Your task to perform on an android device: star an email in the gmail app Image 0: 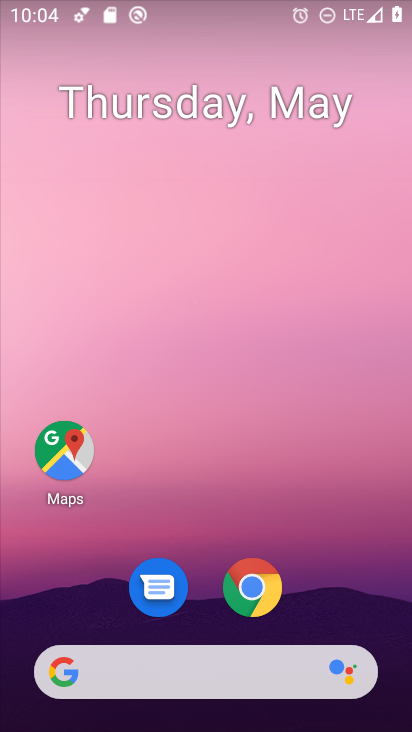
Step 0: drag from (360, 641) to (366, 0)
Your task to perform on an android device: star an email in the gmail app Image 1: 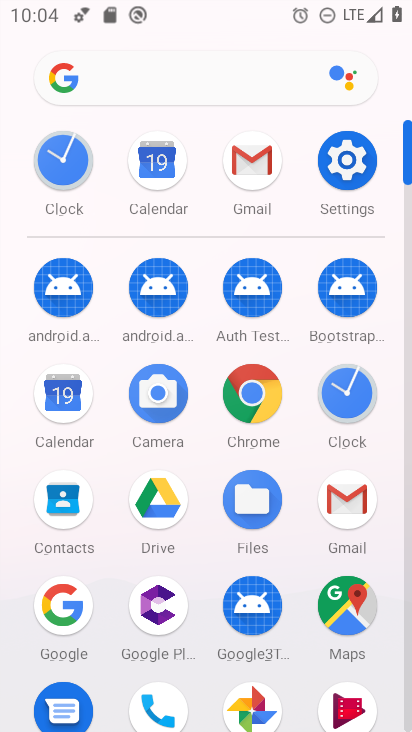
Step 1: click (255, 168)
Your task to perform on an android device: star an email in the gmail app Image 2: 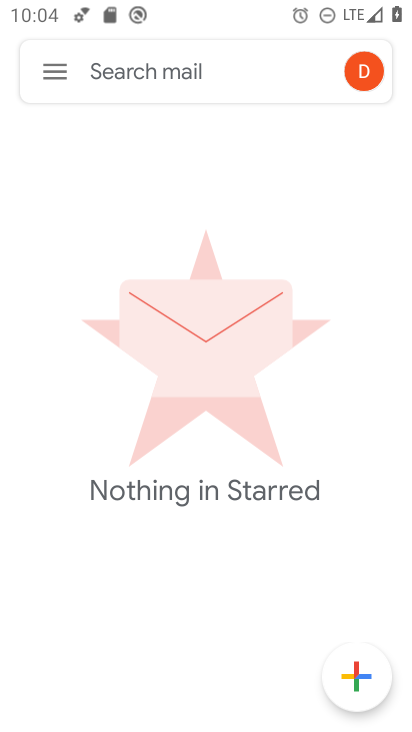
Step 2: click (41, 71)
Your task to perform on an android device: star an email in the gmail app Image 3: 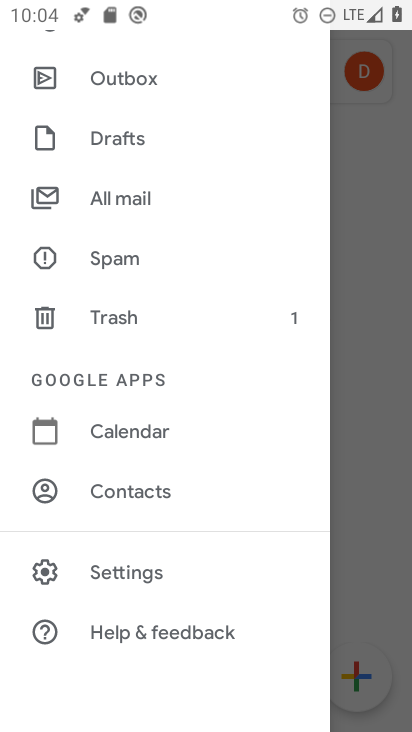
Step 3: click (116, 204)
Your task to perform on an android device: star an email in the gmail app Image 4: 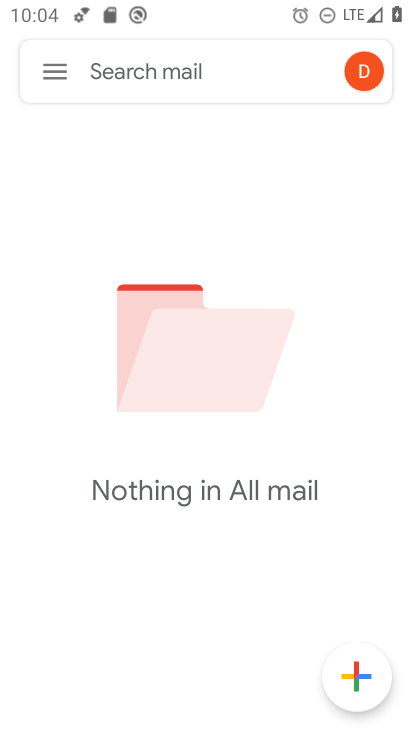
Step 4: task complete